Your task to perform on an android device: Search for hotels in London Image 0: 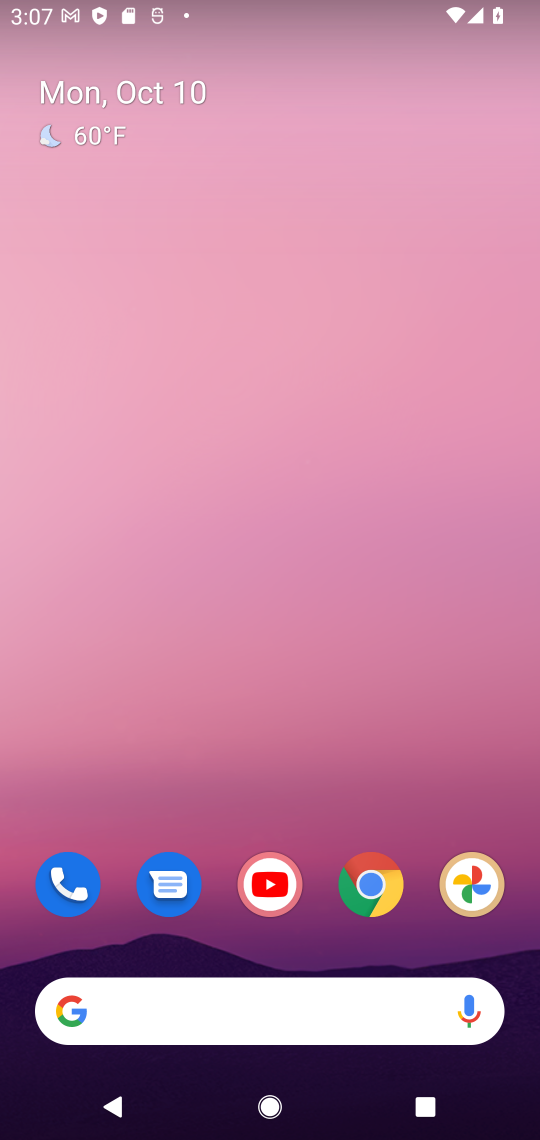
Step 0: click (367, 886)
Your task to perform on an android device: Search for hotels in London Image 1: 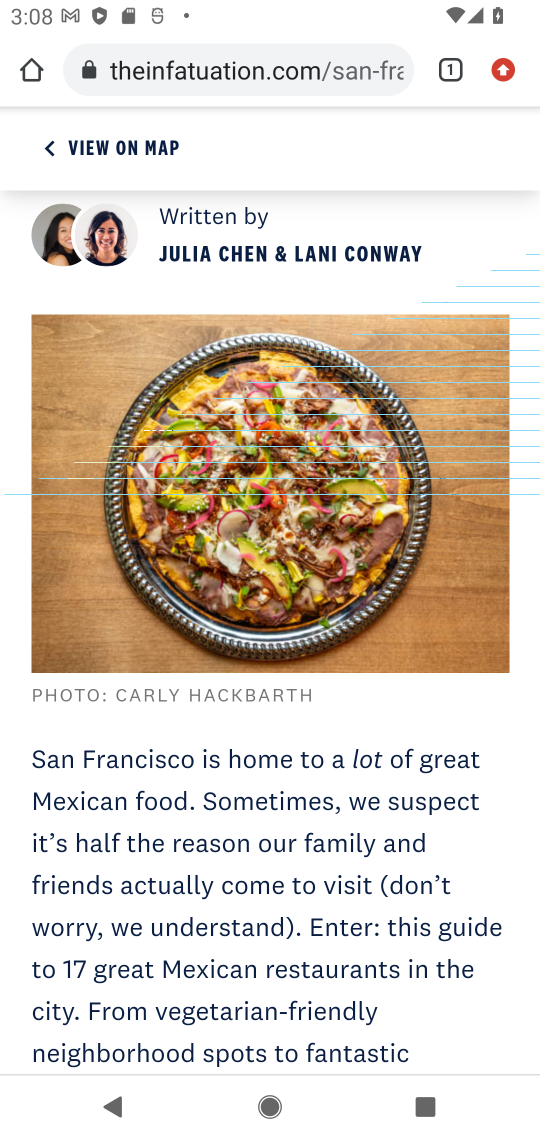
Step 1: click (223, 76)
Your task to perform on an android device: Search for hotels in London Image 2: 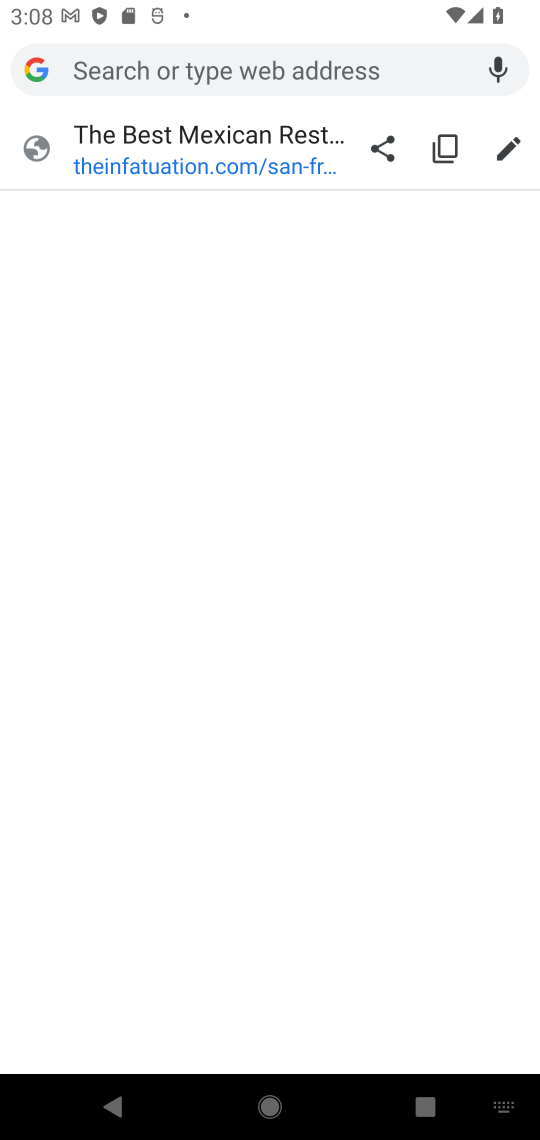
Step 2: type " hotels in London"
Your task to perform on an android device: Search for hotels in London Image 3: 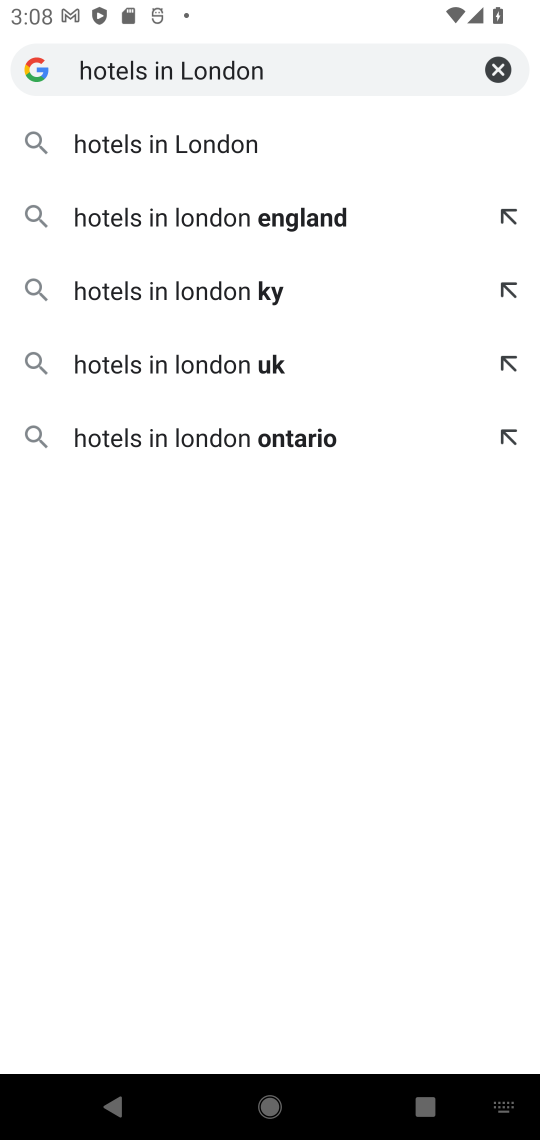
Step 3: click (149, 147)
Your task to perform on an android device: Search for hotels in London Image 4: 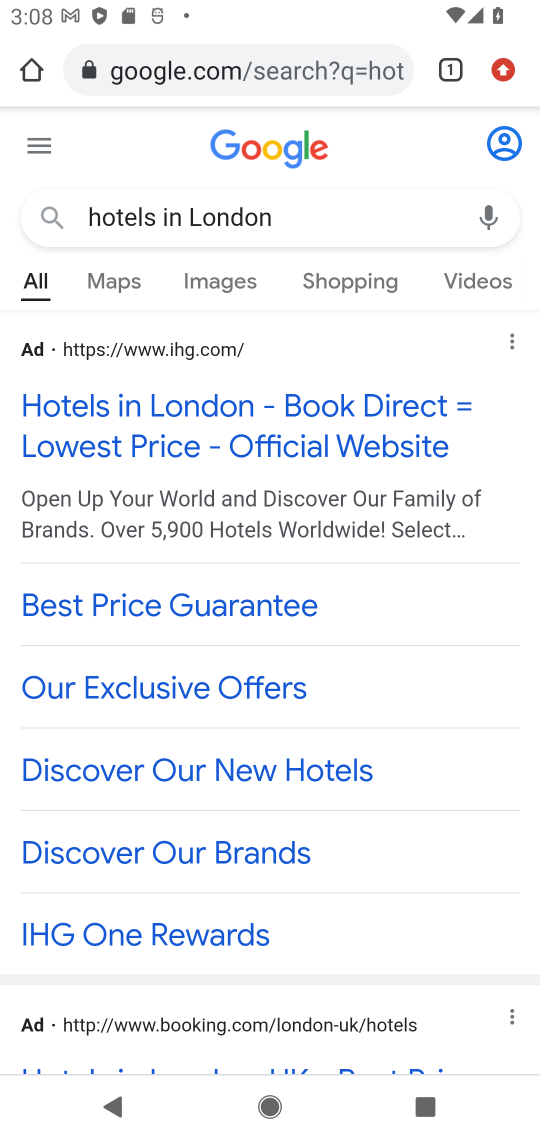
Step 4: click (182, 410)
Your task to perform on an android device: Search for hotels in London Image 5: 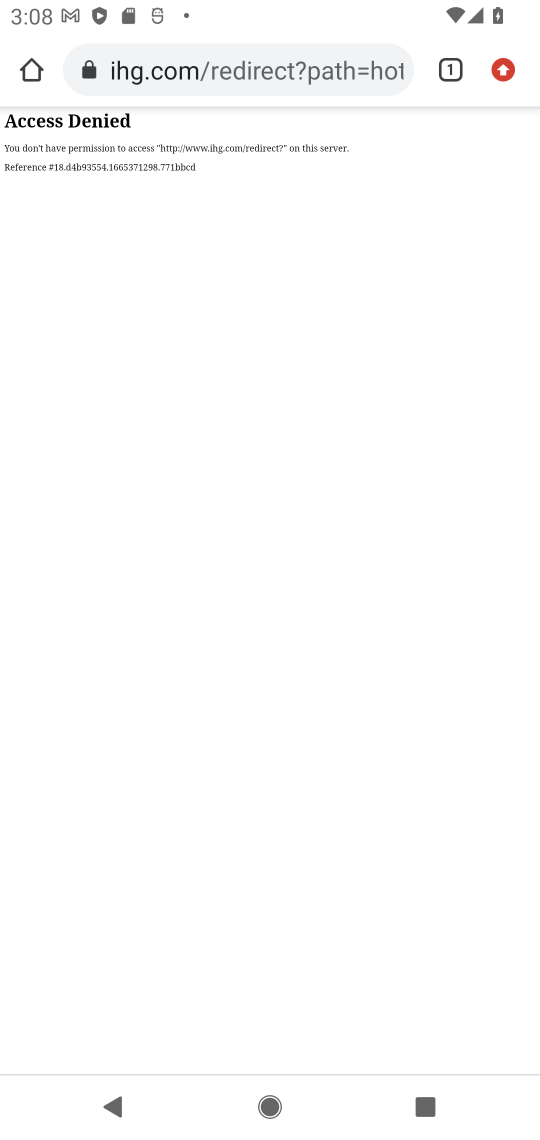
Step 5: press back button
Your task to perform on an android device: Search for hotels in London Image 6: 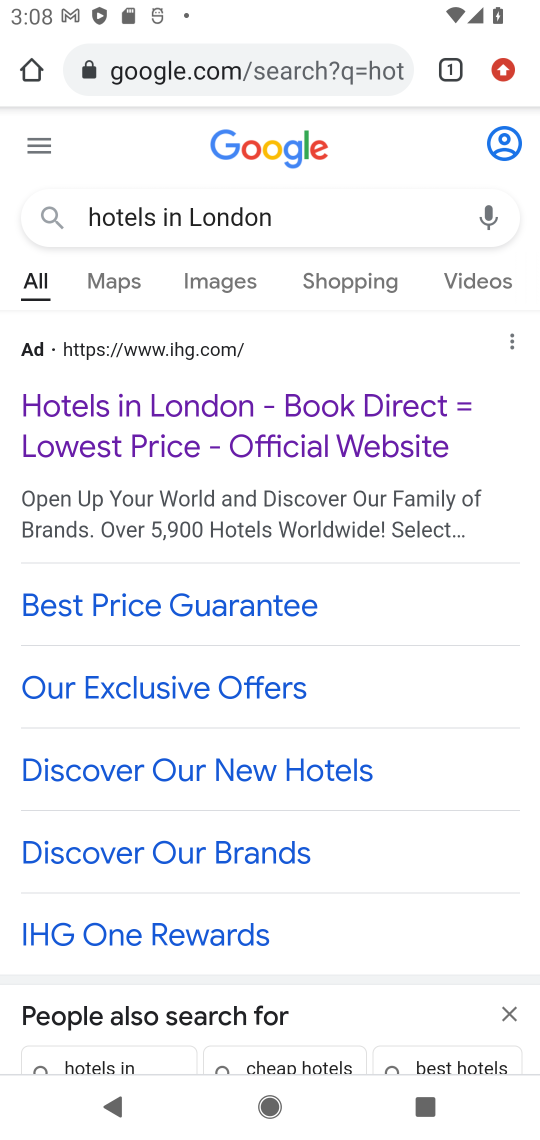
Step 6: drag from (335, 742) to (293, 308)
Your task to perform on an android device: Search for hotels in London Image 7: 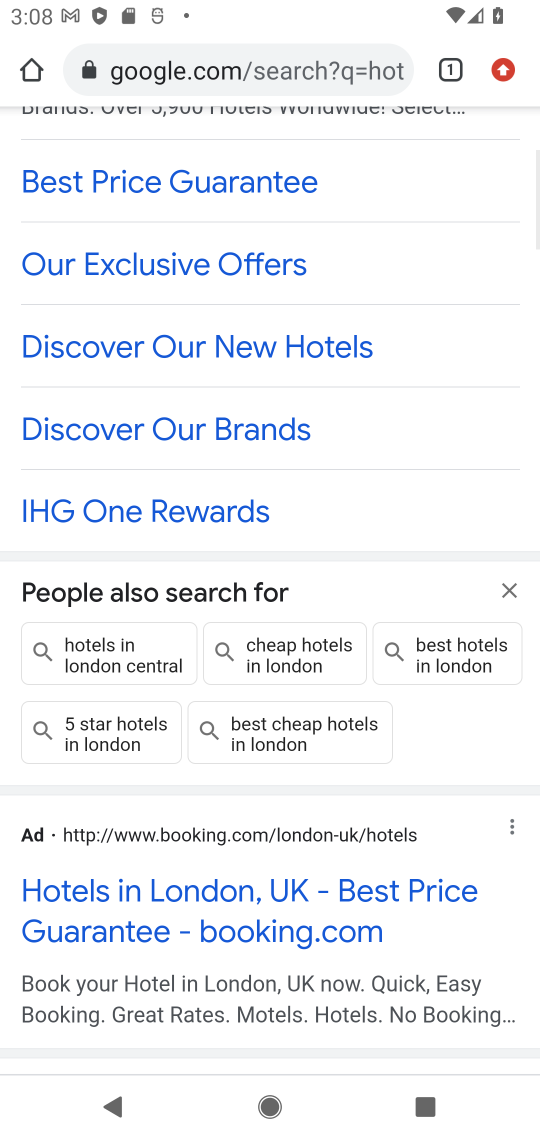
Step 7: drag from (309, 857) to (312, 472)
Your task to perform on an android device: Search for hotels in London Image 8: 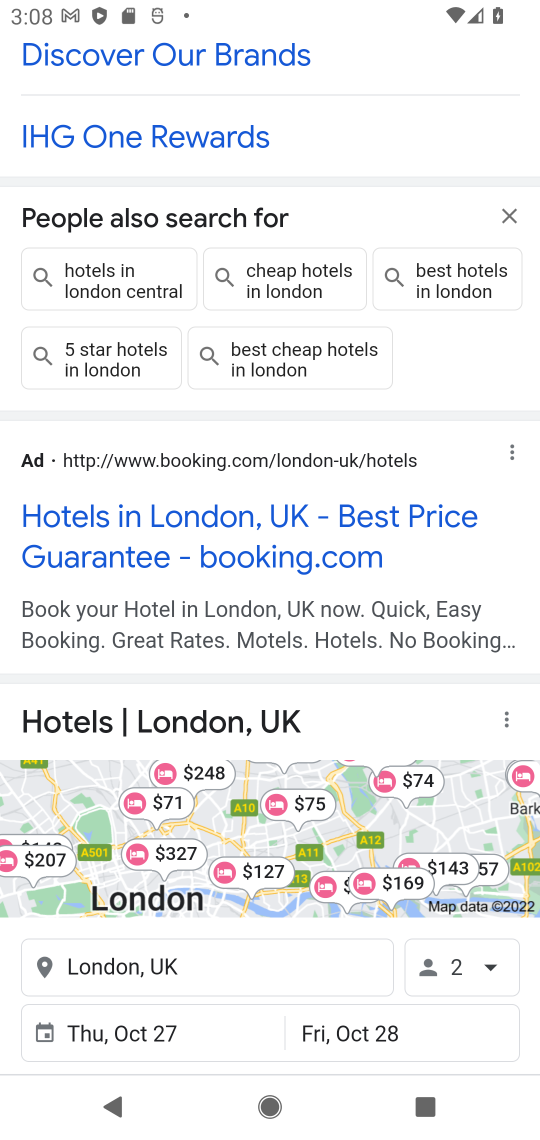
Step 8: click (147, 523)
Your task to perform on an android device: Search for hotels in London Image 9: 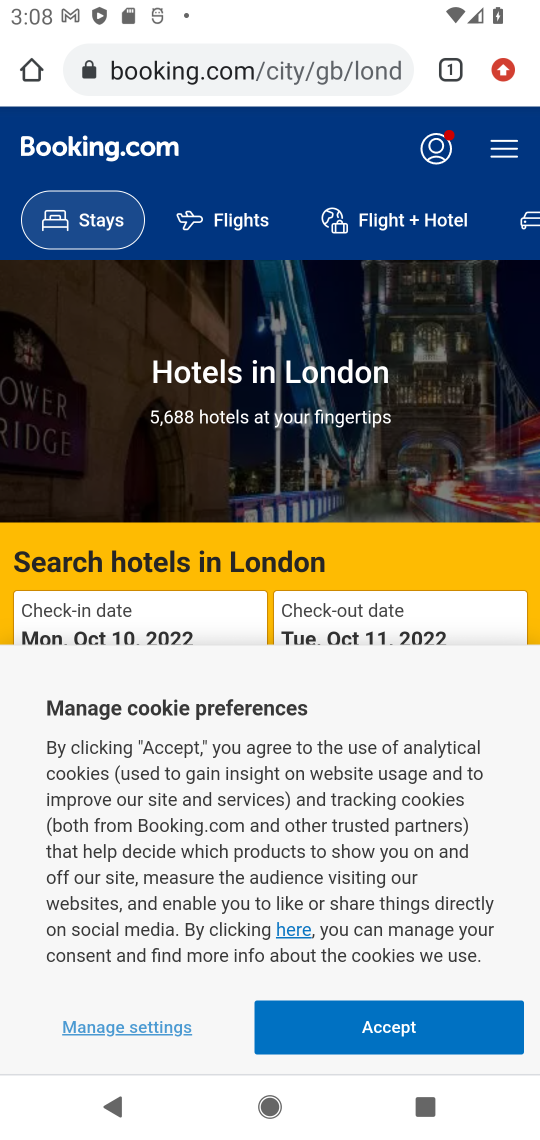
Step 9: task complete